Your task to perform on an android device: toggle show notifications on the lock screen Image 0: 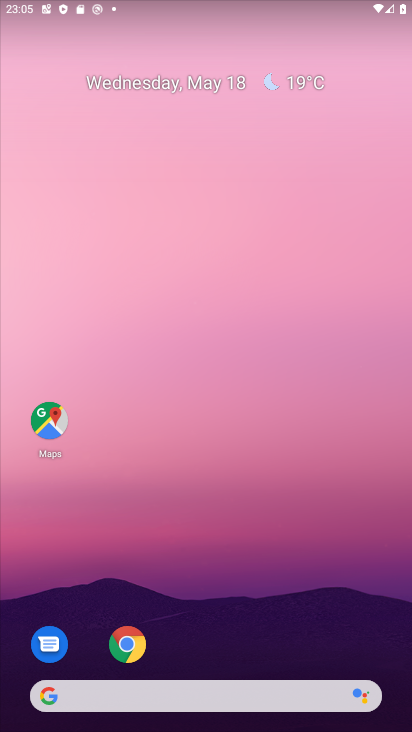
Step 0: drag from (275, 542) to (267, 171)
Your task to perform on an android device: toggle show notifications on the lock screen Image 1: 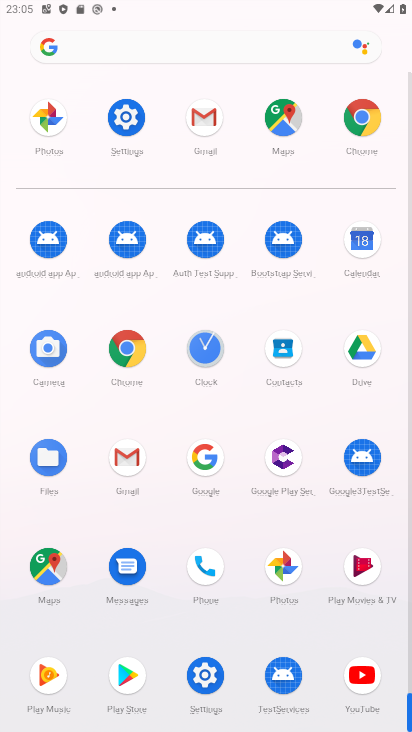
Step 1: click (132, 120)
Your task to perform on an android device: toggle show notifications on the lock screen Image 2: 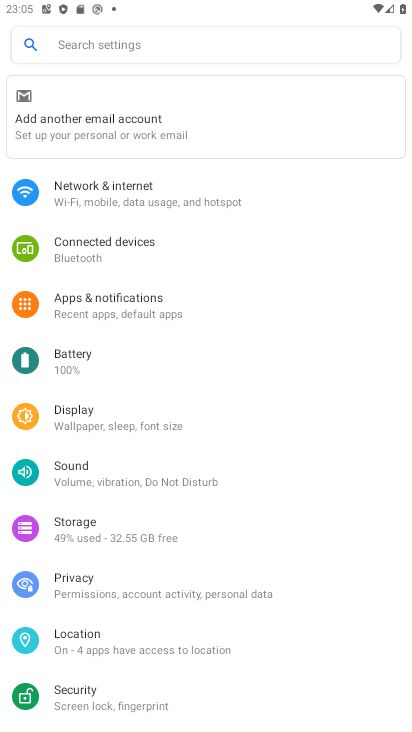
Step 2: click (155, 306)
Your task to perform on an android device: toggle show notifications on the lock screen Image 3: 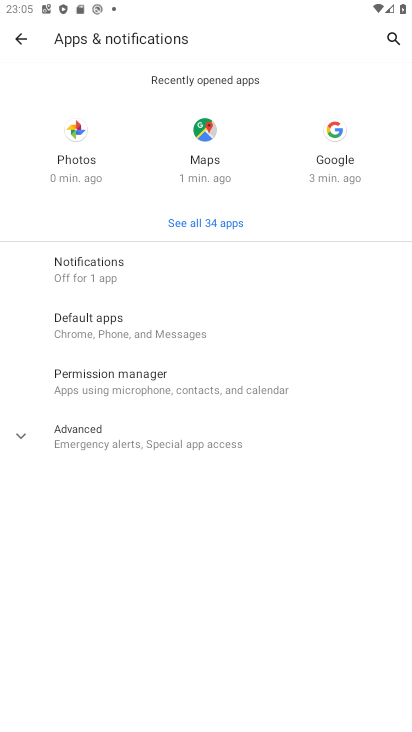
Step 3: click (141, 281)
Your task to perform on an android device: toggle show notifications on the lock screen Image 4: 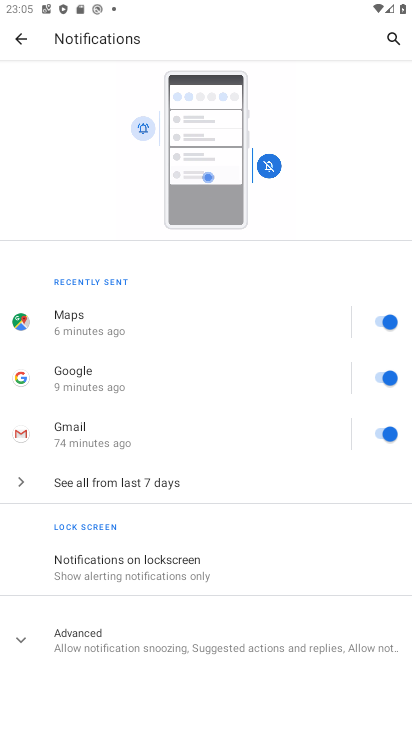
Step 4: drag from (285, 573) to (300, 328)
Your task to perform on an android device: toggle show notifications on the lock screen Image 5: 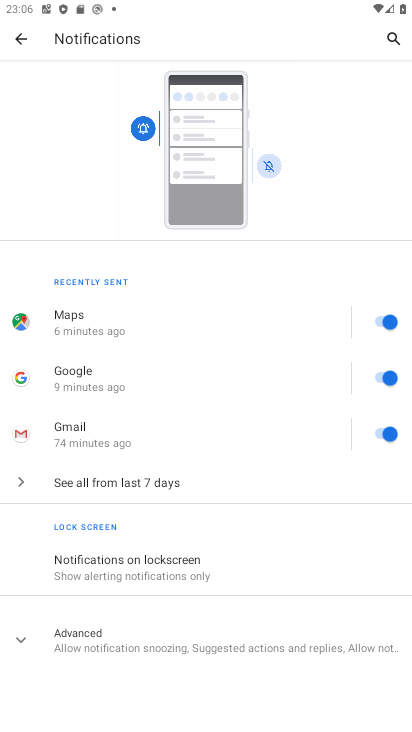
Step 5: click (209, 562)
Your task to perform on an android device: toggle show notifications on the lock screen Image 6: 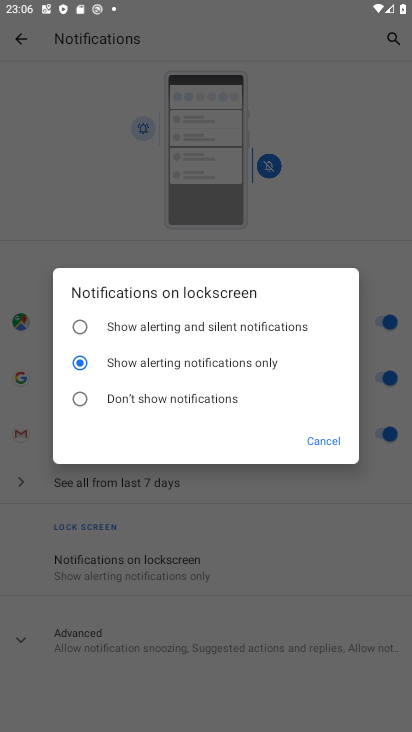
Step 6: click (223, 337)
Your task to perform on an android device: toggle show notifications on the lock screen Image 7: 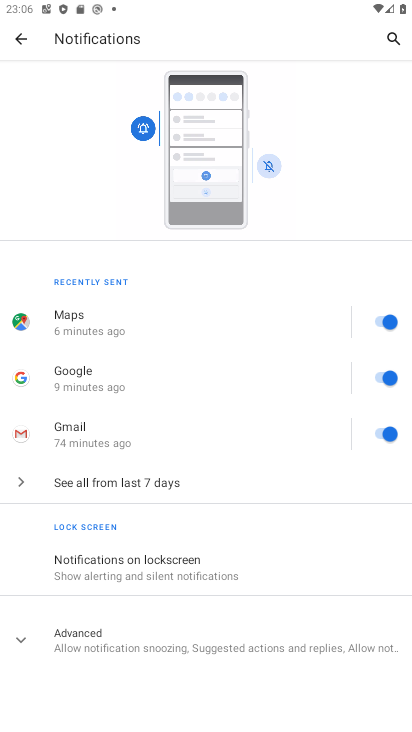
Step 7: task complete